Your task to perform on an android device: remove spam from my inbox in the gmail app Image 0: 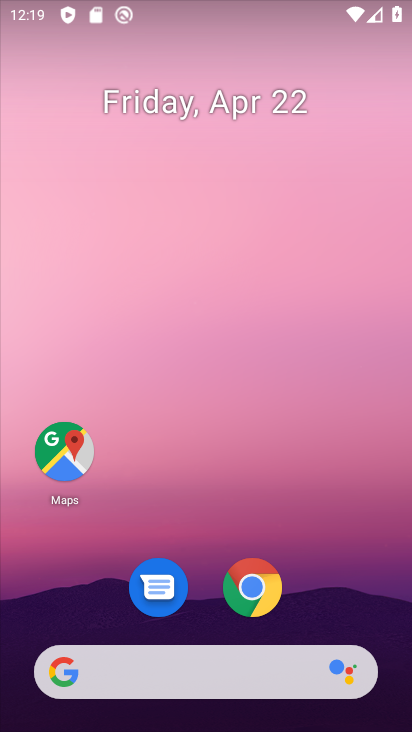
Step 0: drag from (304, 577) to (360, 103)
Your task to perform on an android device: remove spam from my inbox in the gmail app Image 1: 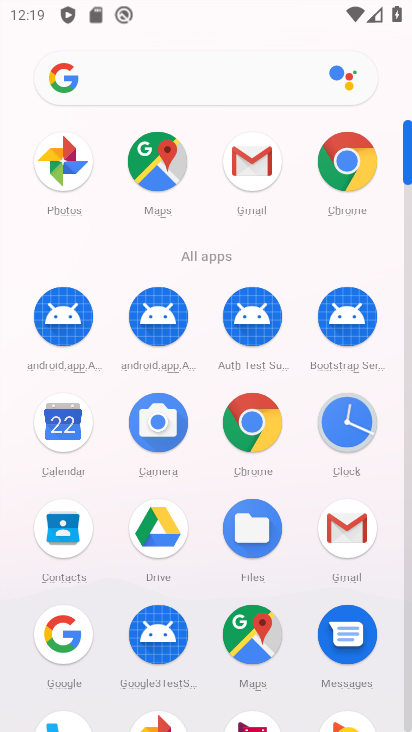
Step 1: click (346, 532)
Your task to perform on an android device: remove spam from my inbox in the gmail app Image 2: 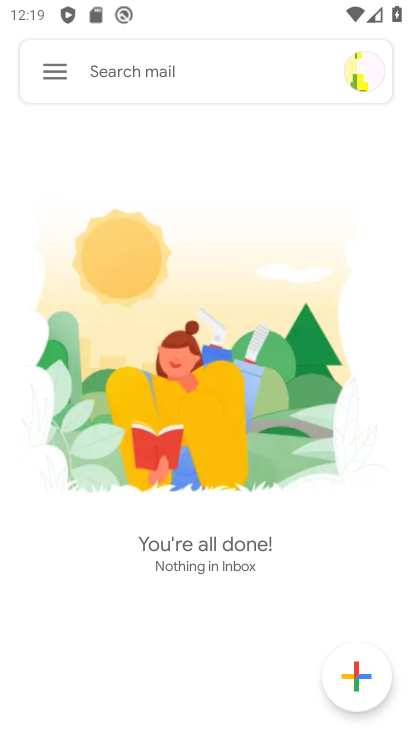
Step 2: click (50, 69)
Your task to perform on an android device: remove spam from my inbox in the gmail app Image 3: 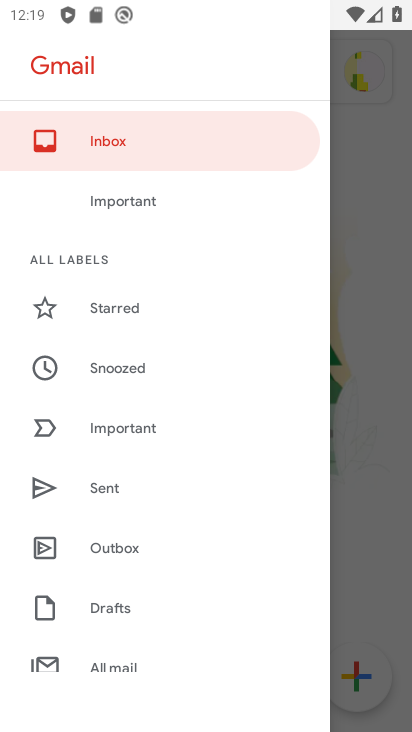
Step 3: drag from (201, 615) to (221, 200)
Your task to perform on an android device: remove spam from my inbox in the gmail app Image 4: 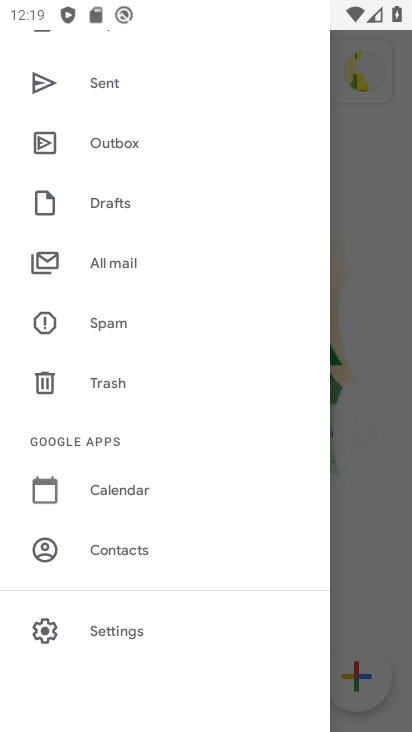
Step 4: click (101, 318)
Your task to perform on an android device: remove spam from my inbox in the gmail app Image 5: 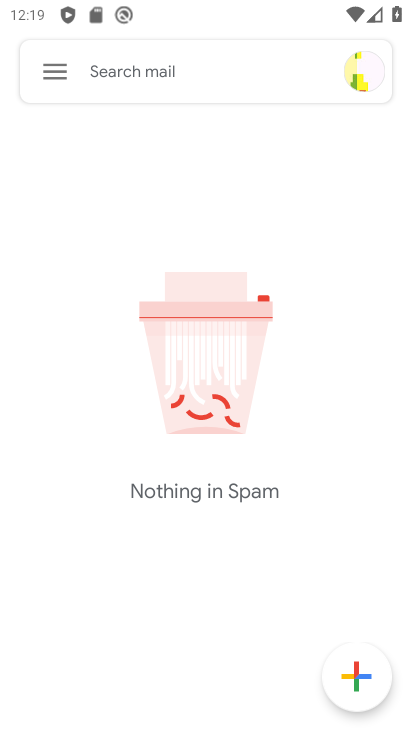
Step 5: task complete